Your task to perform on an android device: turn off notifications settings in the gmail app Image 0: 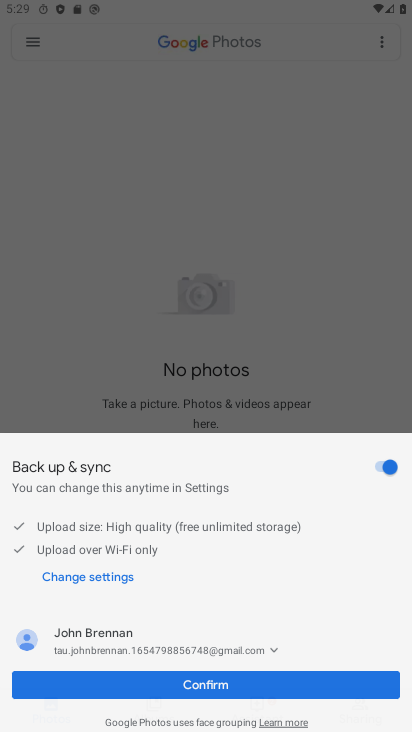
Step 0: drag from (284, 573) to (287, 167)
Your task to perform on an android device: turn off notifications settings in the gmail app Image 1: 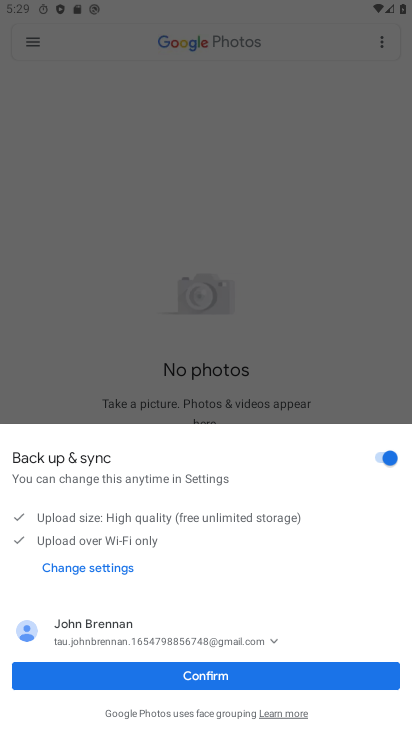
Step 1: press home button
Your task to perform on an android device: turn off notifications settings in the gmail app Image 2: 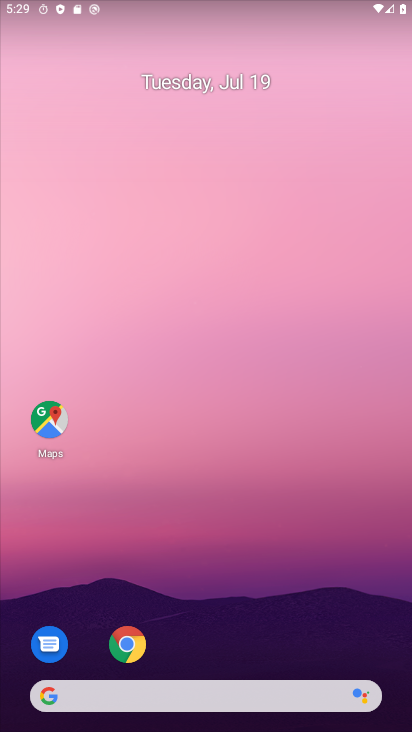
Step 2: drag from (270, 546) to (311, 222)
Your task to perform on an android device: turn off notifications settings in the gmail app Image 3: 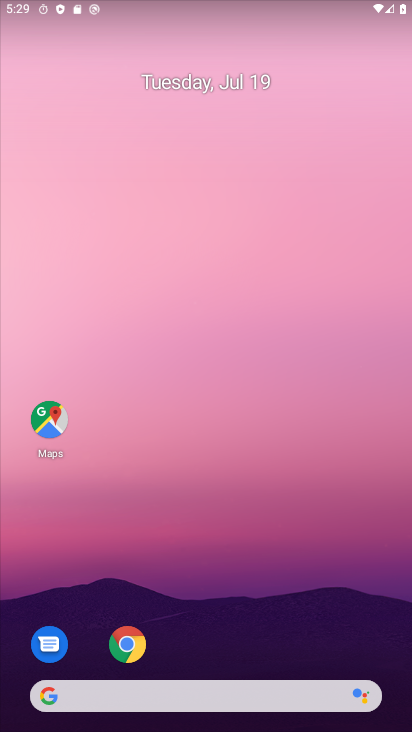
Step 3: click (278, 275)
Your task to perform on an android device: turn off notifications settings in the gmail app Image 4: 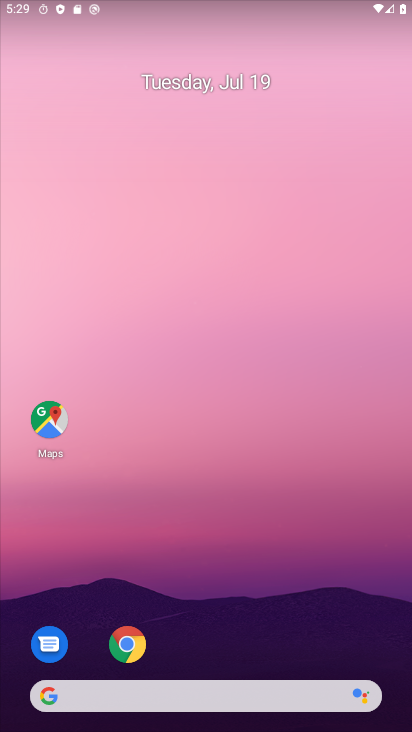
Step 4: drag from (239, 615) to (276, 249)
Your task to perform on an android device: turn off notifications settings in the gmail app Image 5: 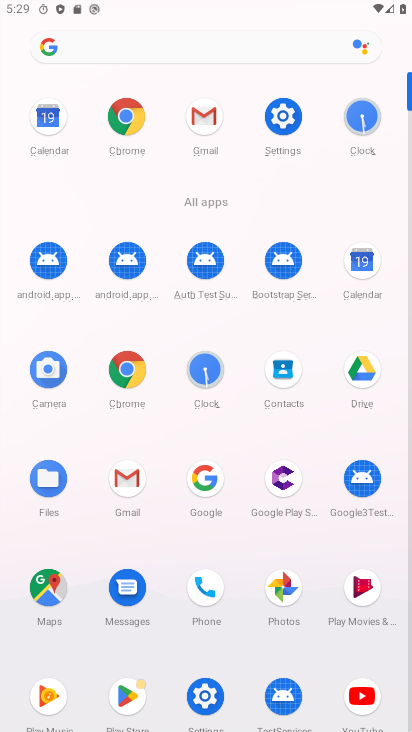
Step 5: click (126, 474)
Your task to perform on an android device: turn off notifications settings in the gmail app Image 6: 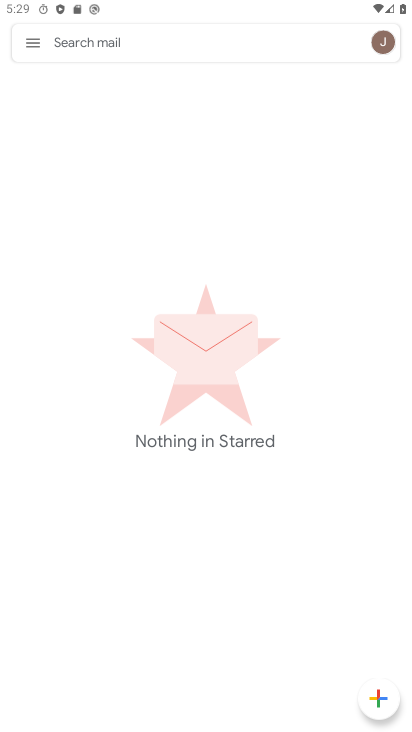
Step 6: click (18, 52)
Your task to perform on an android device: turn off notifications settings in the gmail app Image 7: 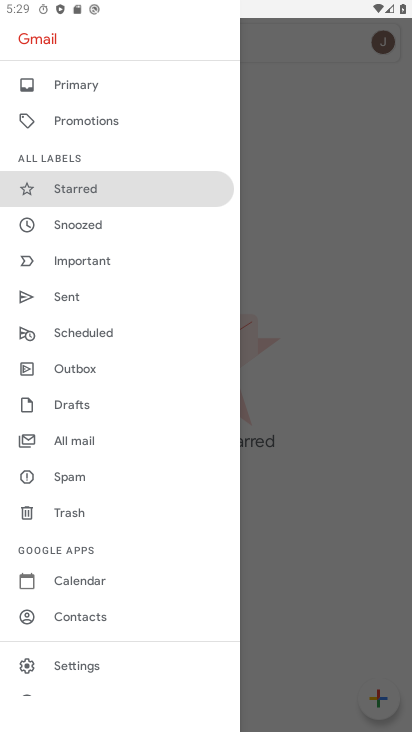
Step 7: click (69, 667)
Your task to perform on an android device: turn off notifications settings in the gmail app Image 8: 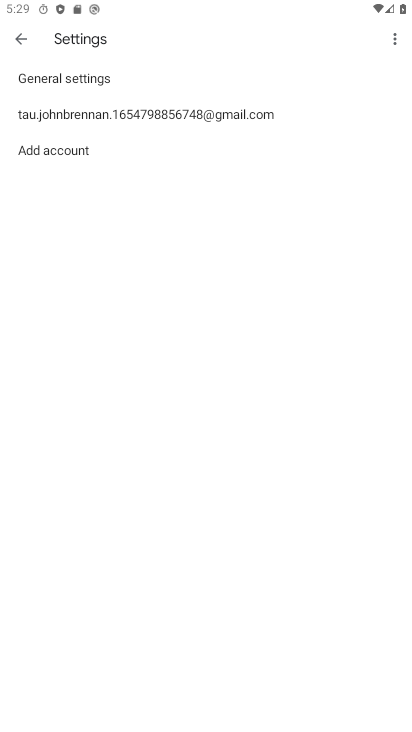
Step 8: click (47, 75)
Your task to perform on an android device: turn off notifications settings in the gmail app Image 9: 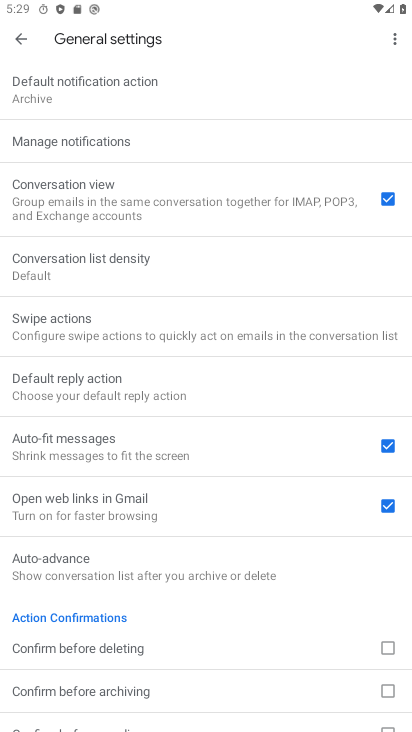
Step 9: task complete